Your task to perform on an android device: toggle priority inbox in the gmail app Image 0: 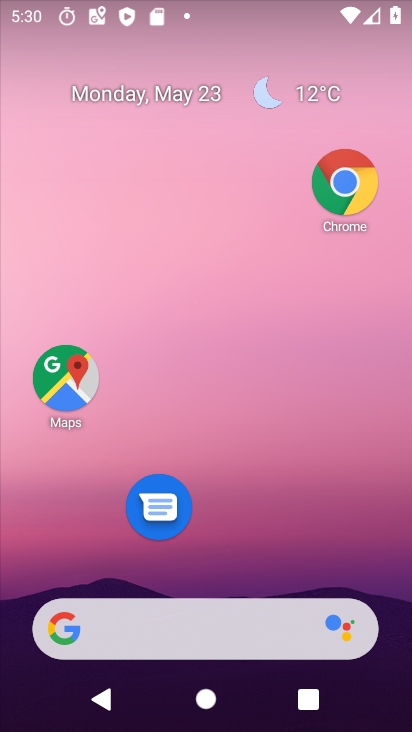
Step 0: drag from (177, 576) to (221, 65)
Your task to perform on an android device: toggle priority inbox in the gmail app Image 1: 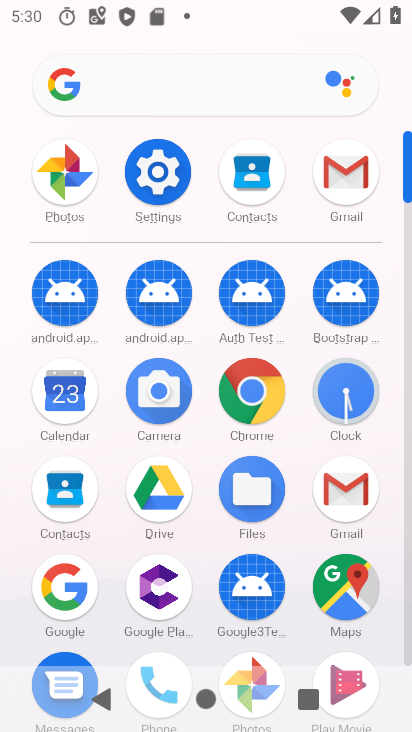
Step 1: click (342, 181)
Your task to perform on an android device: toggle priority inbox in the gmail app Image 2: 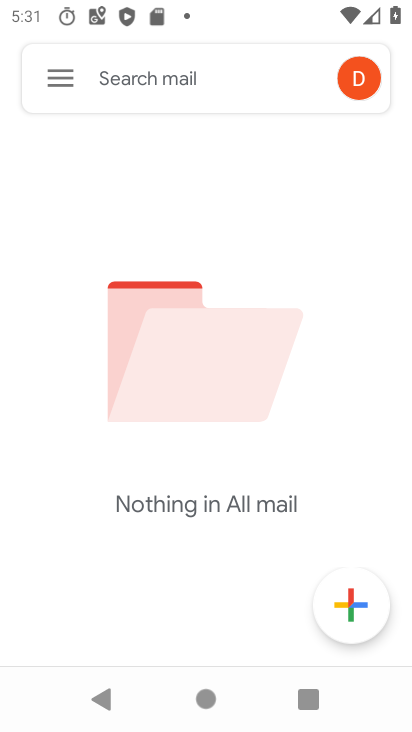
Step 2: click (55, 78)
Your task to perform on an android device: toggle priority inbox in the gmail app Image 3: 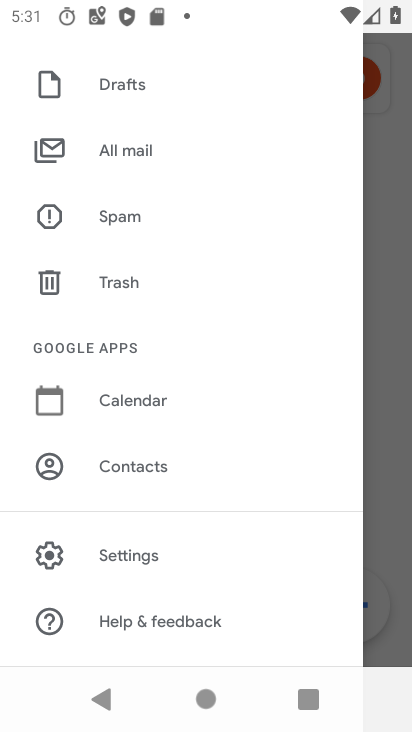
Step 3: click (133, 558)
Your task to perform on an android device: toggle priority inbox in the gmail app Image 4: 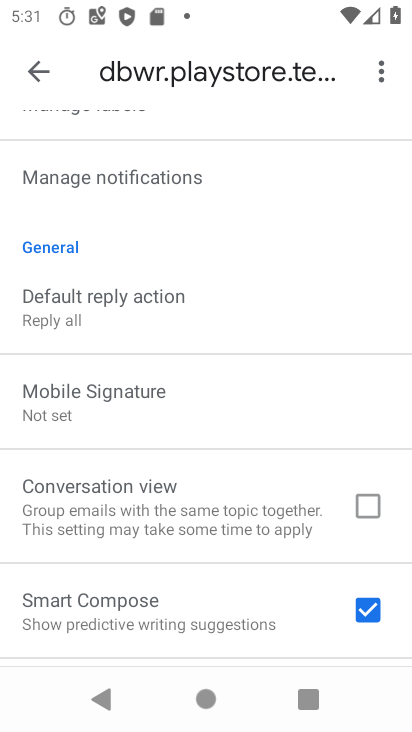
Step 4: drag from (191, 290) to (24, 681)
Your task to perform on an android device: toggle priority inbox in the gmail app Image 5: 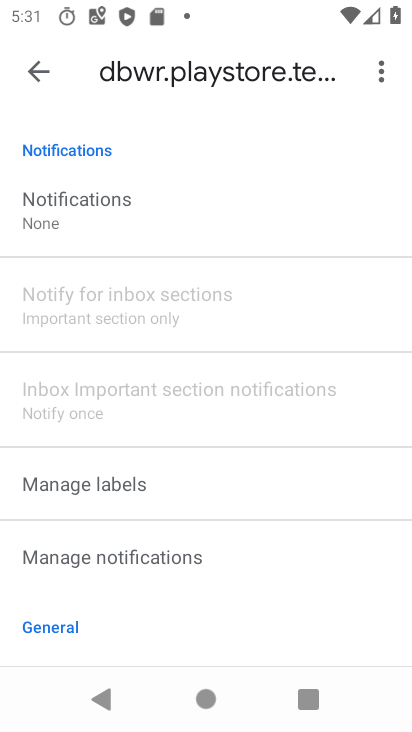
Step 5: drag from (143, 181) to (148, 536)
Your task to perform on an android device: toggle priority inbox in the gmail app Image 6: 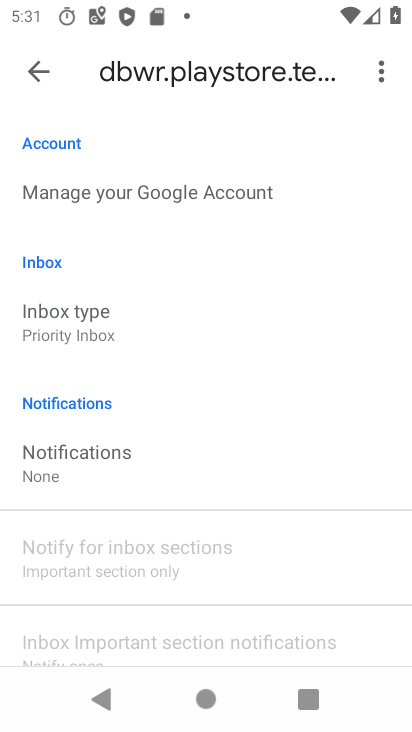
Step 6: click (135, 322)
Your task to perform on an android device: toggle priority inbox in the gmail app Image 7: 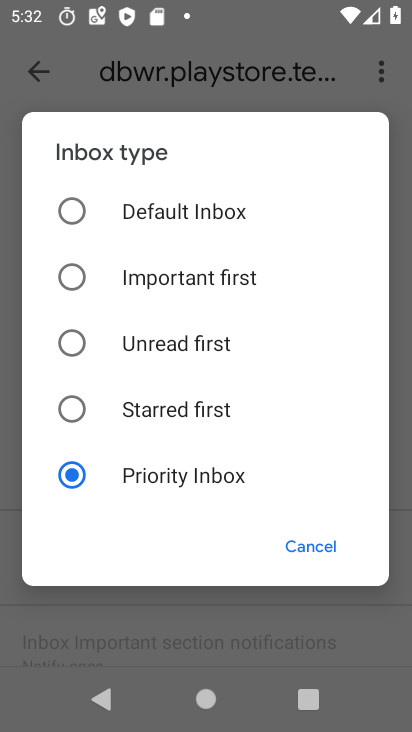
Step 7: click (165, 347)
Your task to perform on an android device: toggle priority inbox in the gmail app Image 8: 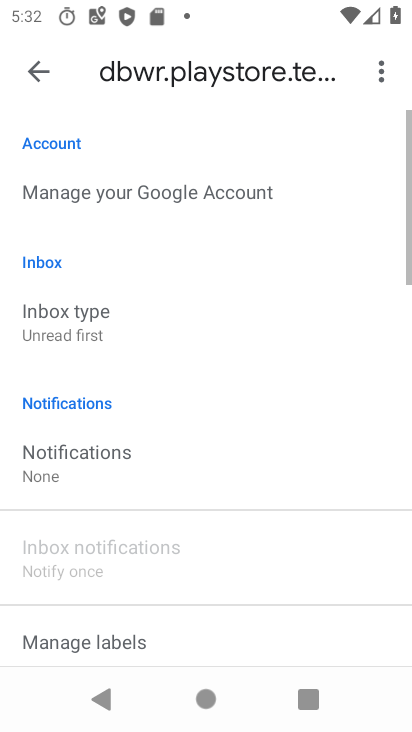
Step 8: click (129, 350)
Your task to perform on an android device: toggle priority inbox in the gmail app Image 9: 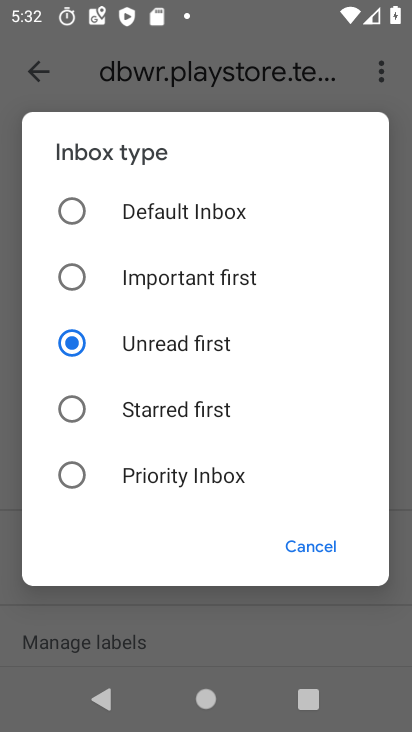
Step 9: task complete